Your task to perform on an android device: change notifications settings Image 0: 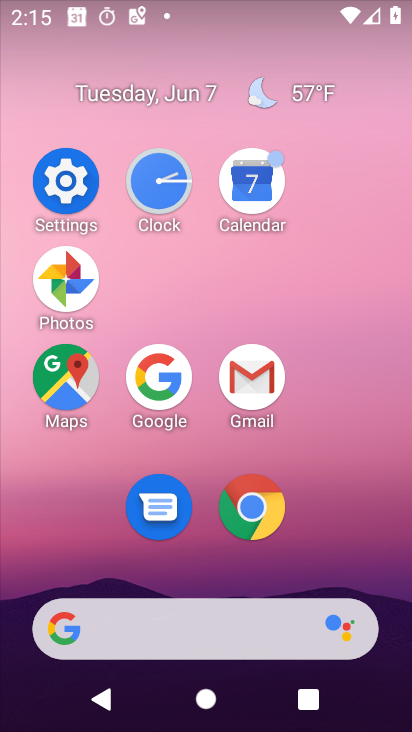
Step 0: click (75, 184)
Your task to perform on an android device: change notifications settings Image 1: 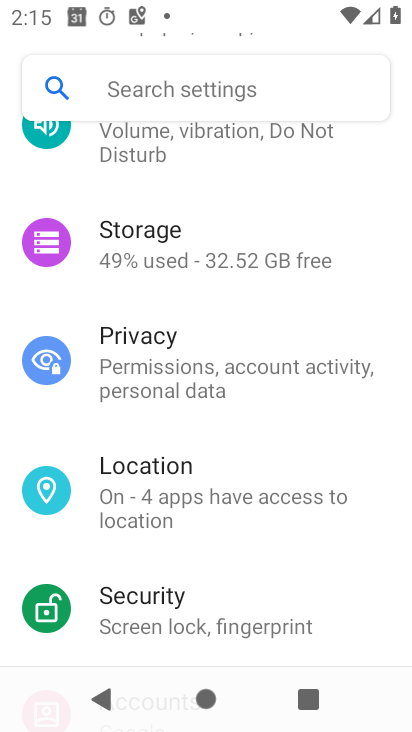
Step 1: drag from (350, 182) to (315, 433)
Your task to perform on an android device: change notifications settings Image 2: 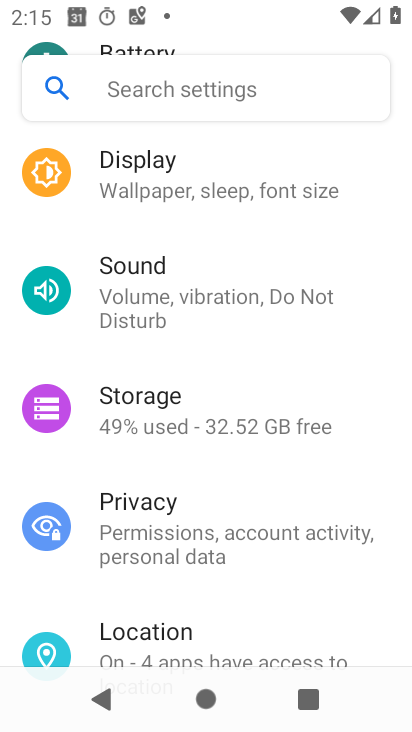
Step 2: drag from (277, 135) to (265, 518)
Your task to perform on an android device: change notifications settings Image 3: 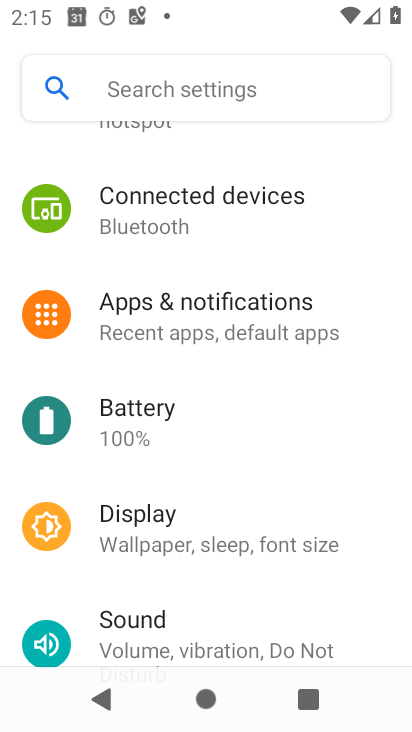
Step 3: click (207, 328)
Your task to perform on an android device: change notifications settings Image 4: 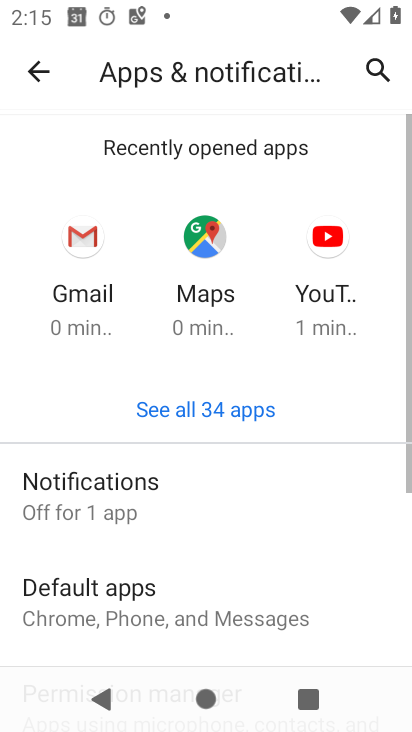
Step 4: click (250, 498)
Your task to perform on an android device: change notifications settings Image 5: 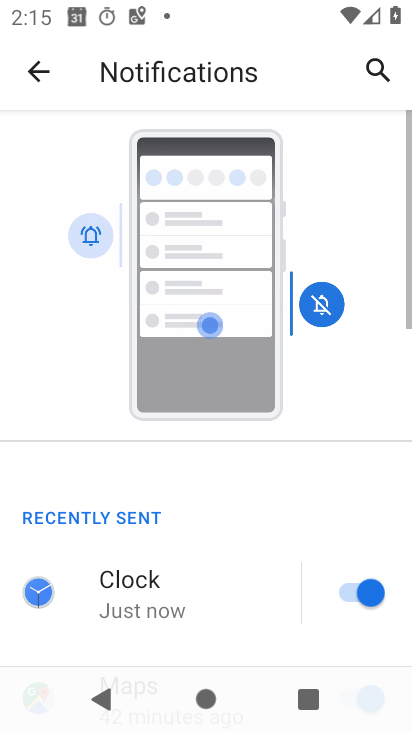
Step 5: drag from (237, 585) to (219, 80)
Your task to perform on an android device: change notifications settings Image 6: 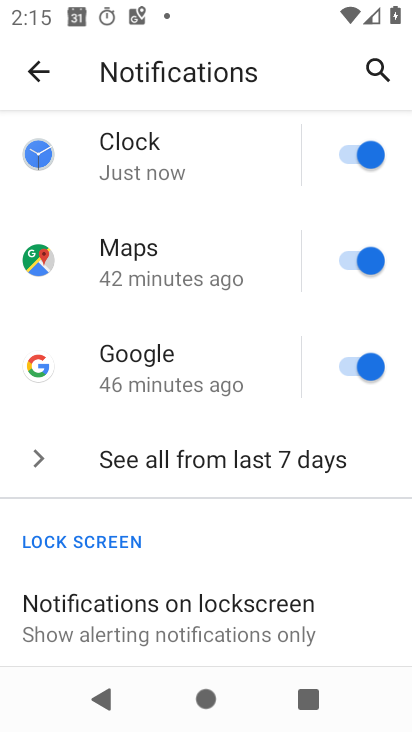
Step 6: drag from (244, 575) to (237, 149)
Your task to perform on an android device: change notifications settings Image 7: 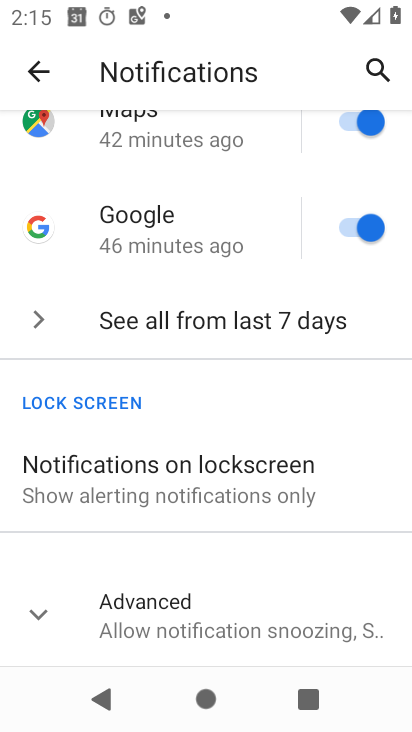
Step 7: click (285, 619)
Your task to perform on an android device: change notifications settings Image 8: 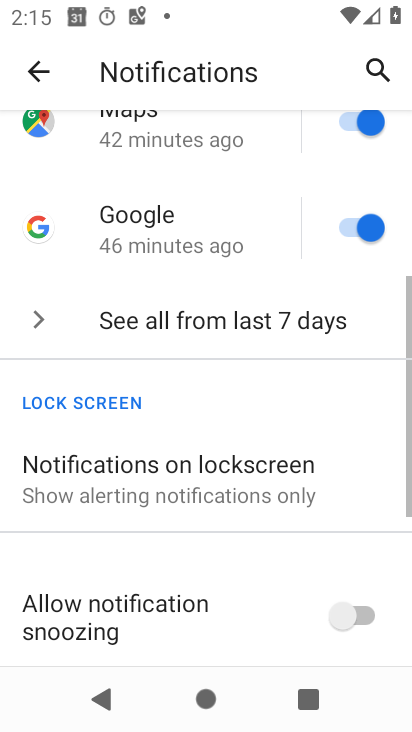
Step 8: drag from (282, 613) to (292, 196)
Your task to perform on an android device: change notifications settings Image 9: 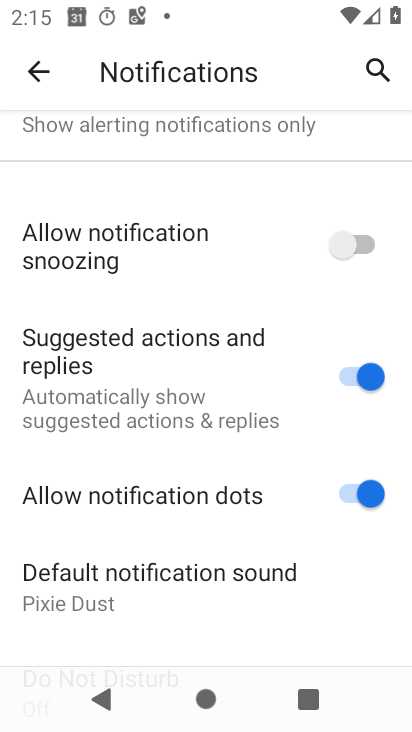
Step 9: click (368, 486)
Your task to perform on an android device: change notifications settings Image 10: 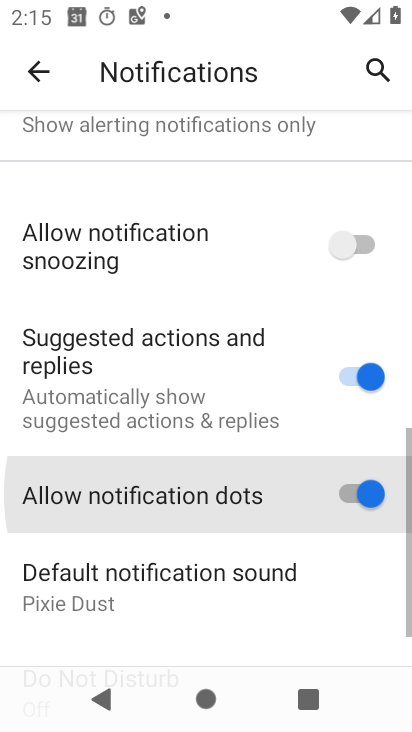
Step 10: click (372, 393)
Your task to perform on an android device: change notifications settings Image 11: 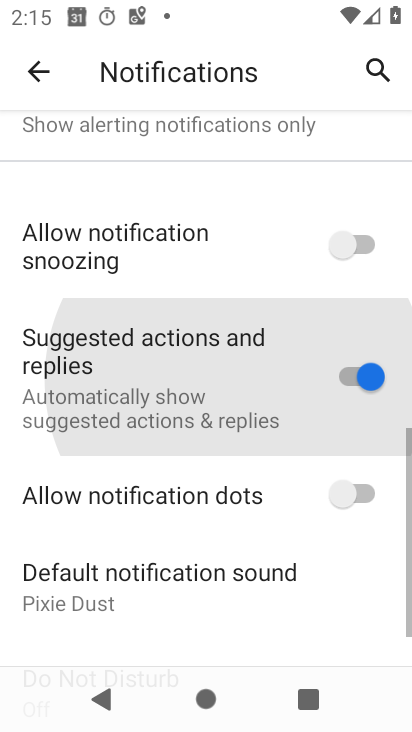
Step 11: click (334, 231)
Your task to perform on an android device: change notifications settings Image 12: 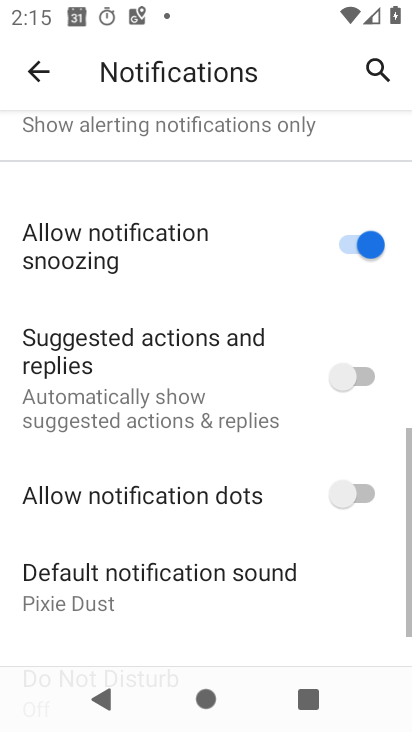
Step 12: task complete